Your task to perform on an android device: turn on sleep mode Image 0: 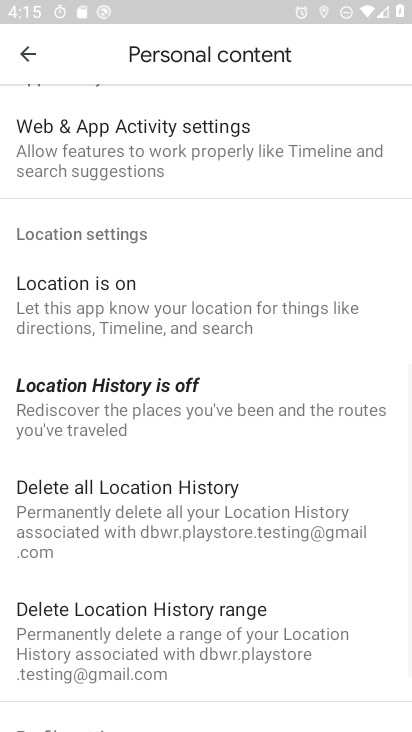
Step 0: press home button
Your task to perform on an android device: turn on sleep mode Image 1: 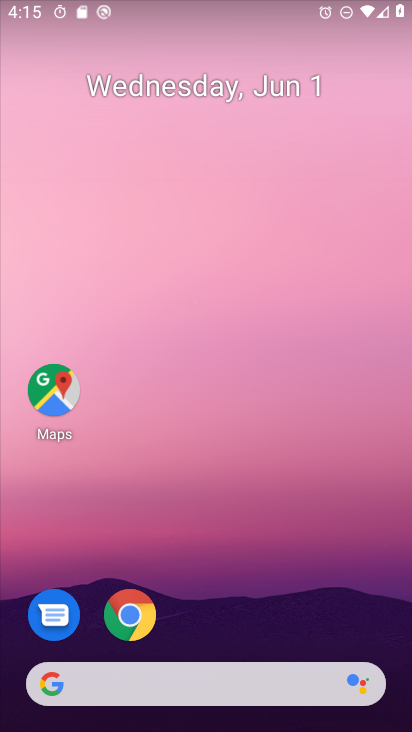
Step 1: drag from (305, 562) to (326, 0)
Your task to perform on an android device: turn on sleep mode Image 2: 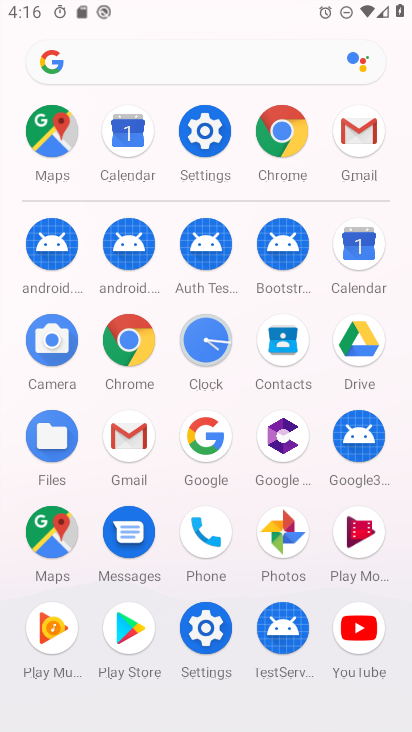
Step 2: click (205, 149)
Your task to perform on an android device: turn on sleep mode Image 3: 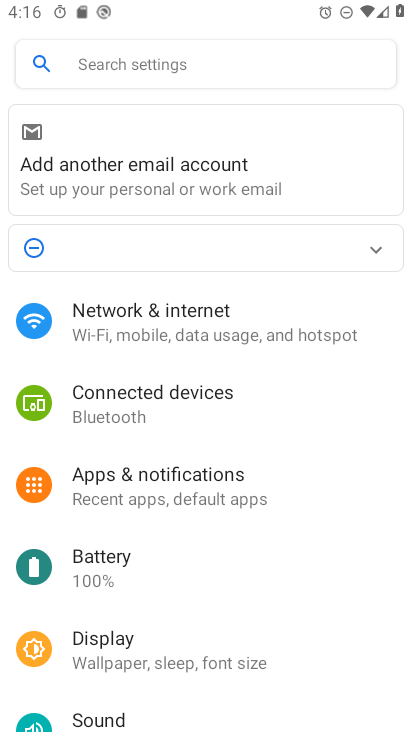
Step 3: click (248, 662)
Your task to perform on an android device: turn on sleep mode Image 4: 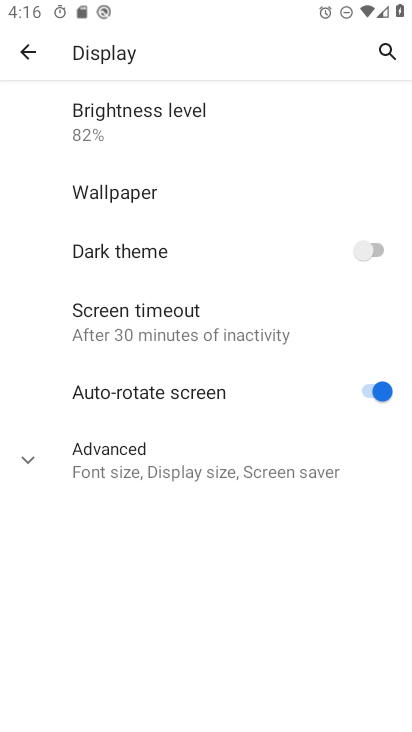
Step 4: task complete